Your task to perform on an android device: Open sound settings Image 0: 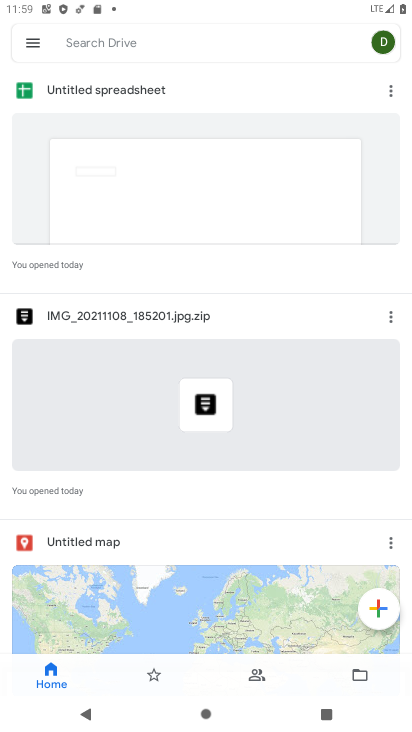
Step 0: press home button
Your task to perform on an android device: Open sound settings Image 1: 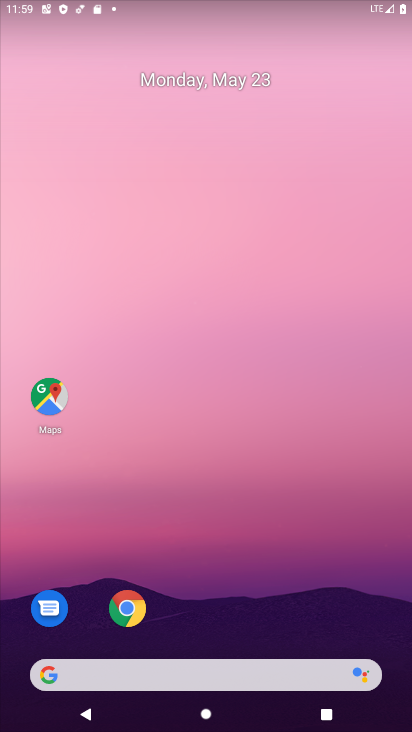
Step 1: drag from (206, 639) to (213, 41)
Your task to perform on an android device: Open sound settings Image 2: 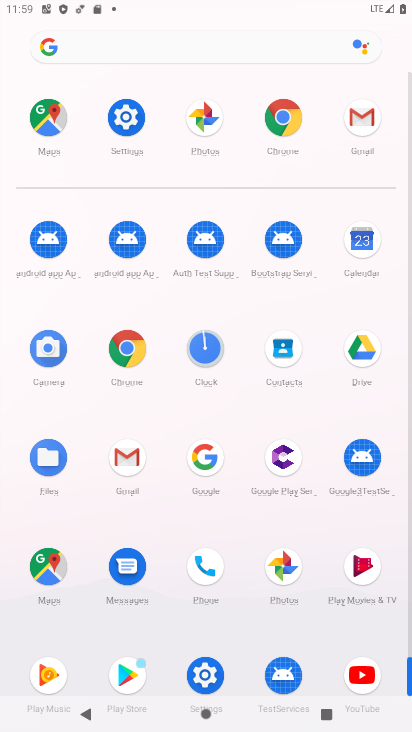
Step 2: click (120, 110)
Your task to perform on an android device: Open sound settings Image 3: 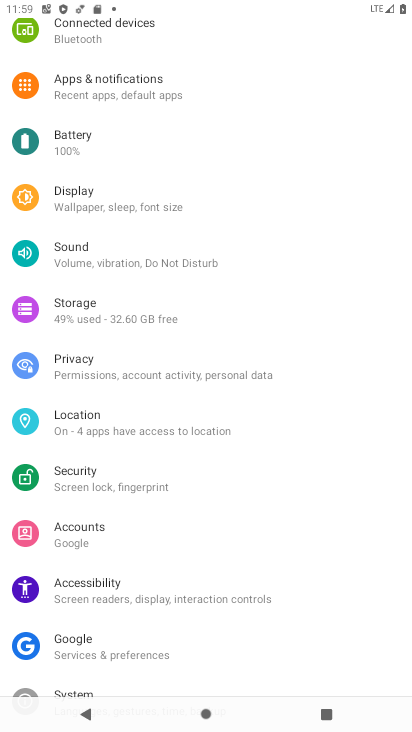
Step 3: click (96, 212)
Your task to perform on an android device: Open sound settings Image 4: 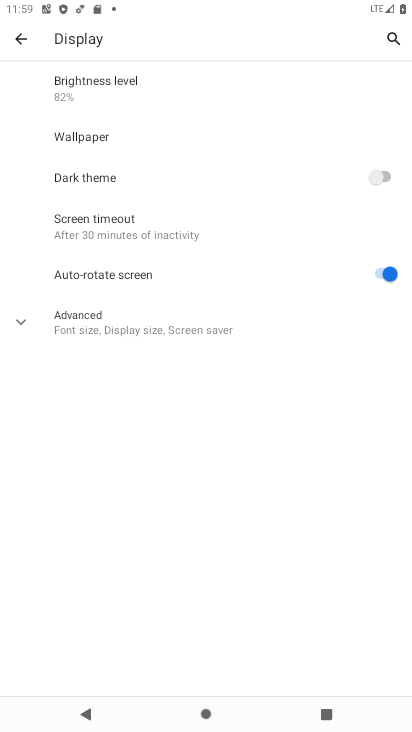
Step 4: click (22, 317)
Your task to perform on an android device: Open sound settings Image 5: 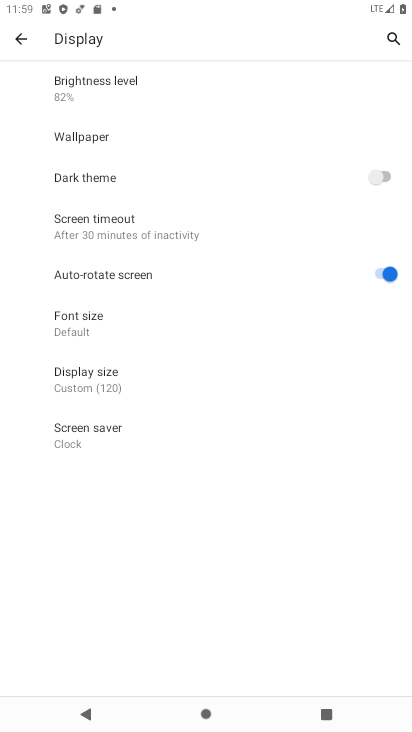
Step 5: task complete